Your task to perform on an android device: open chrome privacy settings Image 0: 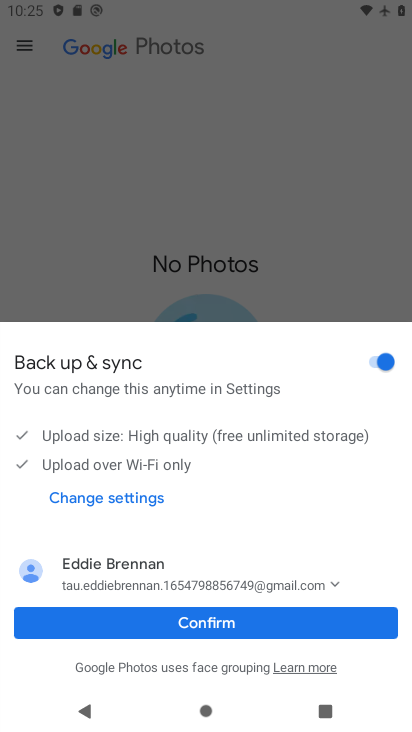
Step 0: press home button
Your task to perform on an android device: open chrome privacy settings Image 1: 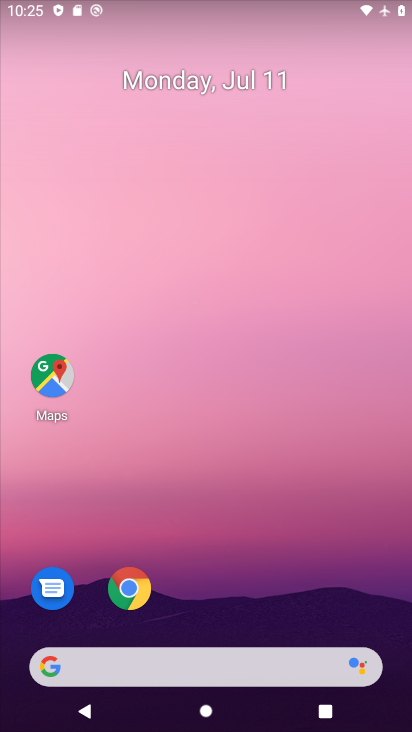
Step 1: click (132, 590)
Your task to perform on an android device: open chrome privacy settings Image 2: 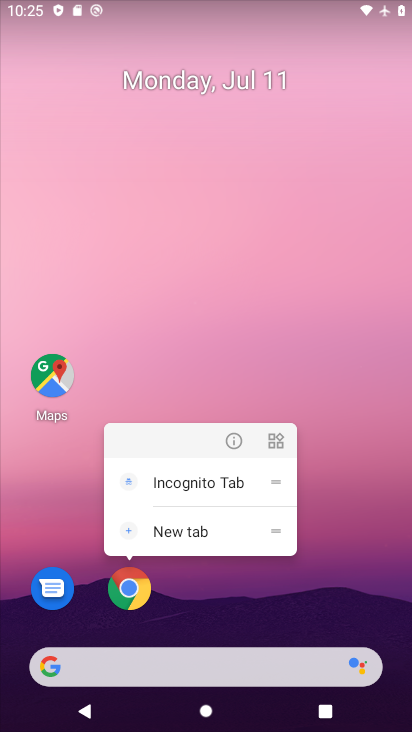
Step 2: click (128, 592)
Your task to perform on an android device: open chrome privacy settings Image 3: 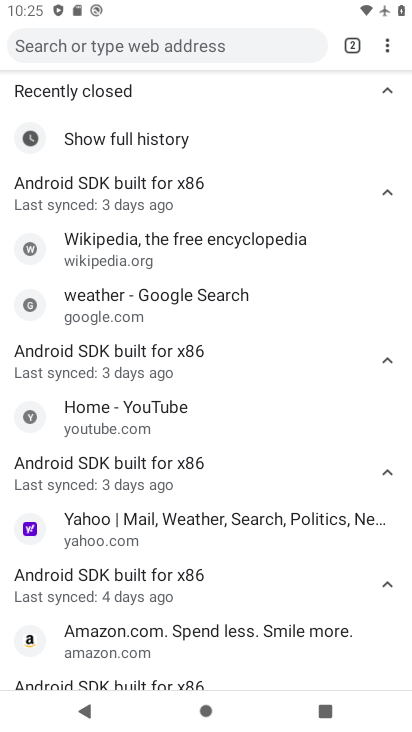
Step 3: drag from (387, 46) to (244, 387)
Your task to perform on an android device: open chrome privacy settings Image 4: 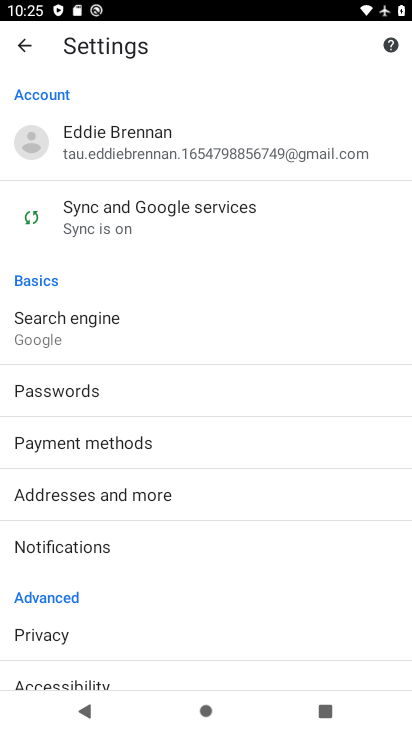
Step 4: click (50, 637)
Your task to perform on an android device: open chrome privacy settings Image 5: 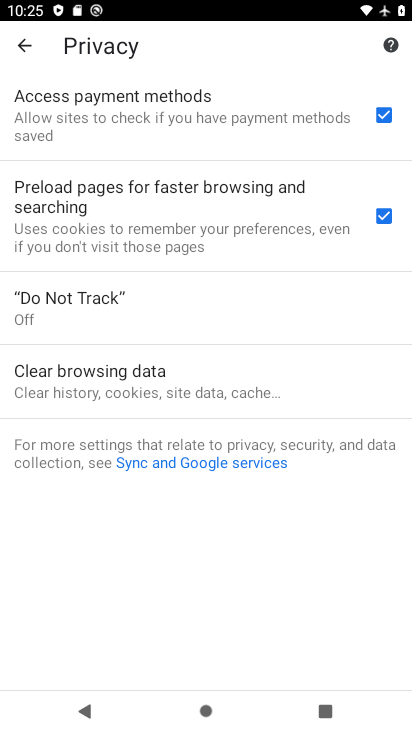
Step 5: task complete